Your task to perform on an android device: find snoozed emails in the gmail app Image 0: 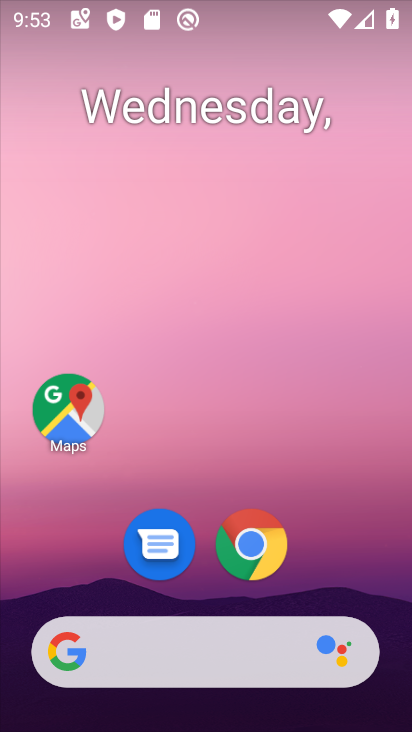
Step 0: drag from (192, 723) to (200, 148)
Your task to perform on an android device: find snoozed emails in the gmail app Image 1: 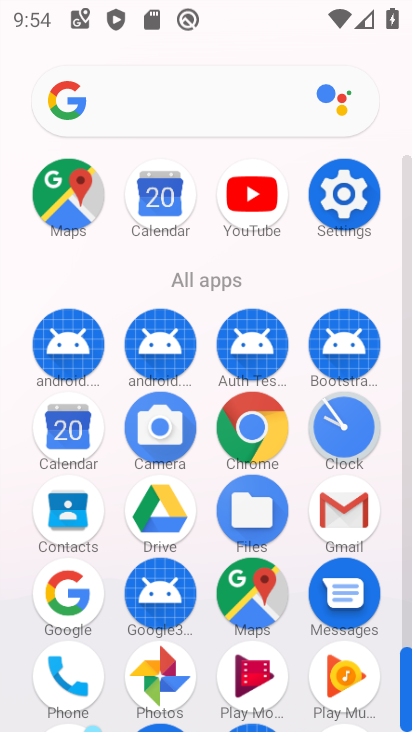
Step 1: click (347, 510)
Your task to perform on an android device: find snoozed emails in the gmail app Image 2: 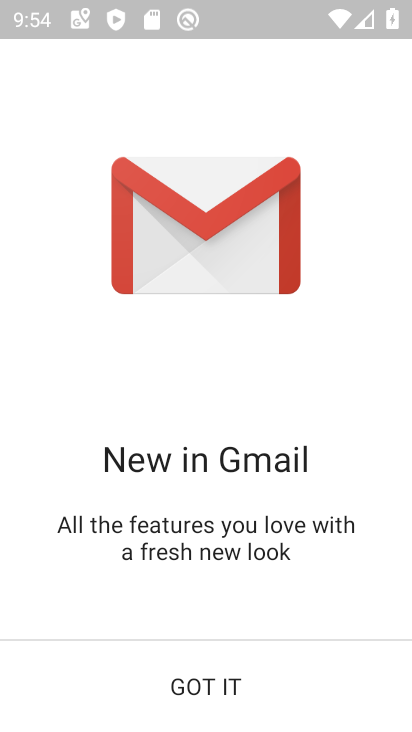
Step 2: click (206, 674)
Your task to perform on an android device: find snoozed emails in the gmail app Image 3: 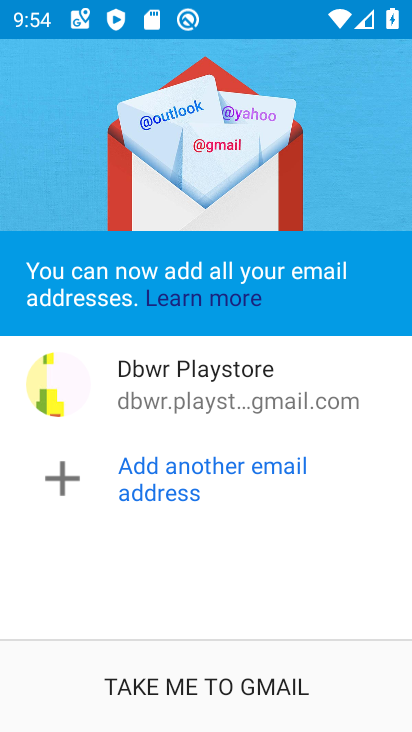
Step 3: click (206, 674)
Your task to perform on an android device: find snoozed emails in the gmail app Image 4: 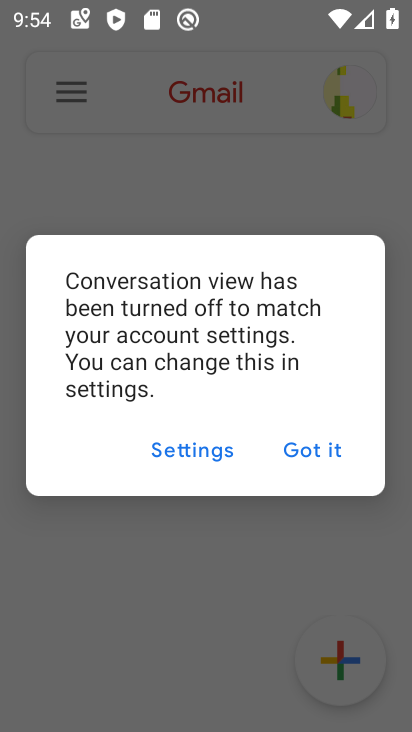
Step 4: click (292, 444)
Your task to perform on an android device: find snoozed emails in the gmail app Image 5: 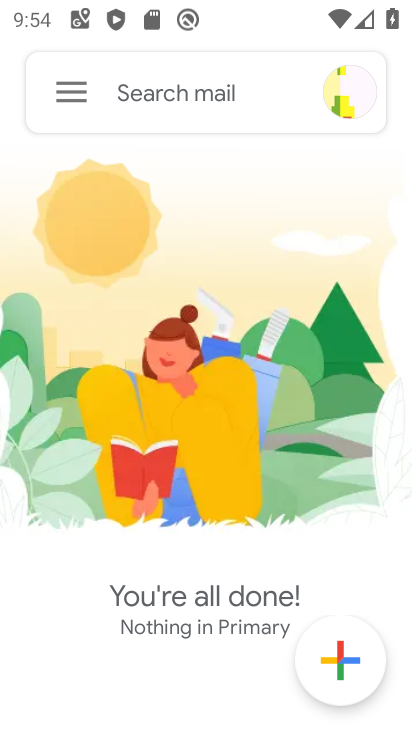
Step 5: click (72, 97)
Your task to perform on an android device: find snoozed emails in the gmail app Image 6: 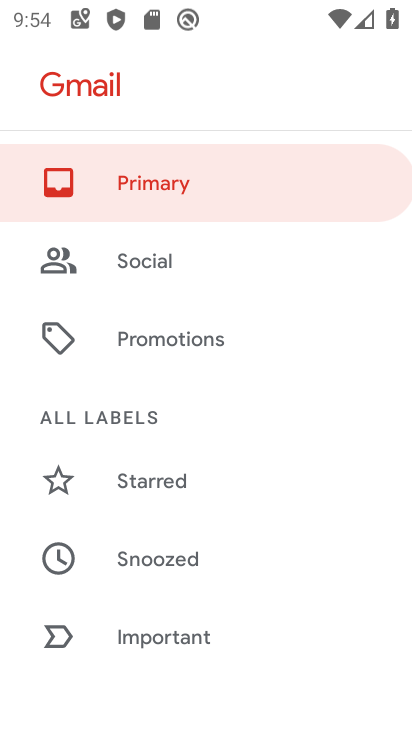
Step 6: click (157, 559)
Your task to perform on an android device: find snoozed emails in the gmail app Image 7: 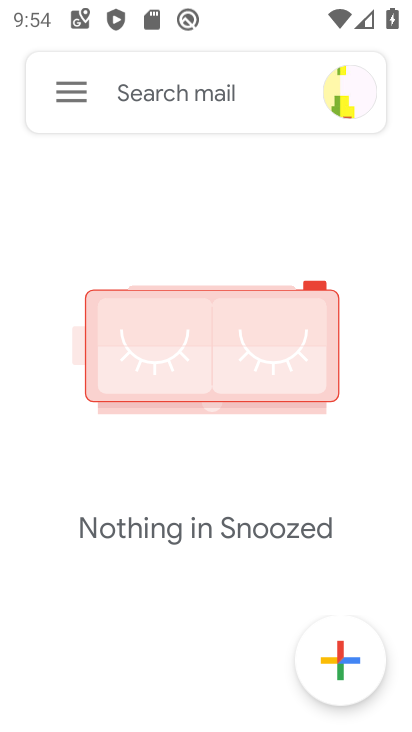
Step 7: task complete